Your task to perform on an android device: Search for vintage wall art on Etsy. Image 0: 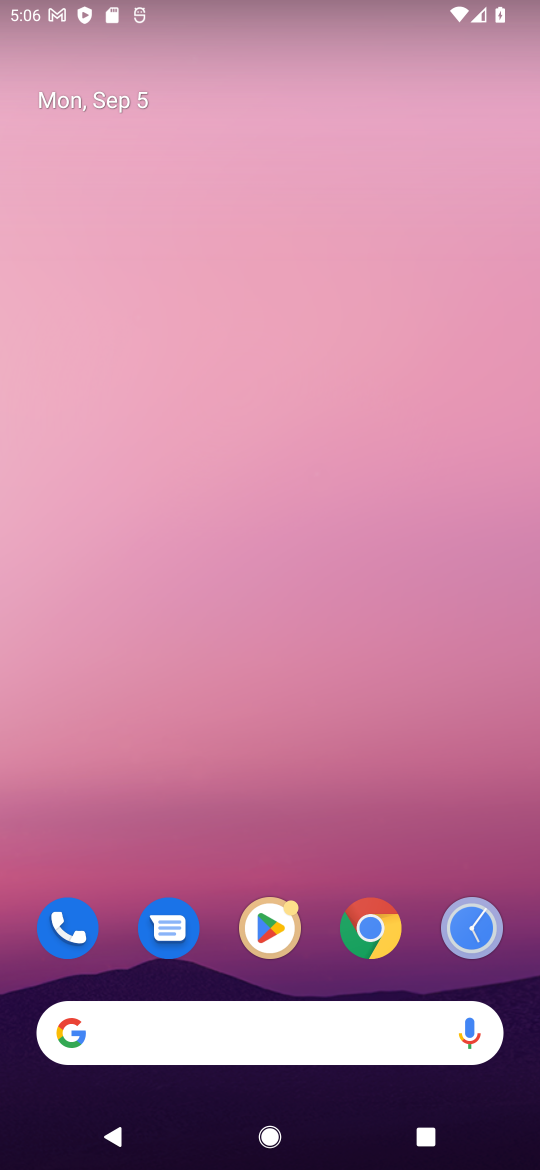
Step 0: click (357, 934)
Your task to perform on an android device: Search for vintage wall art on Etsy. Image 1: 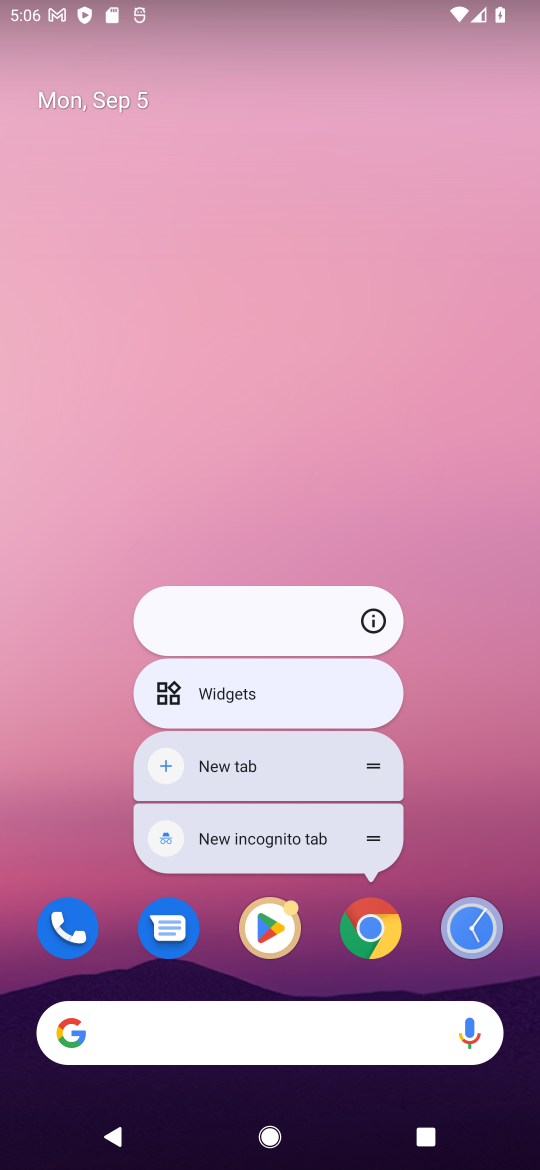
Step 1: click (357, 934)
Your task to perform on an android device: Search for vintage wall art on Etsy. Image 2: 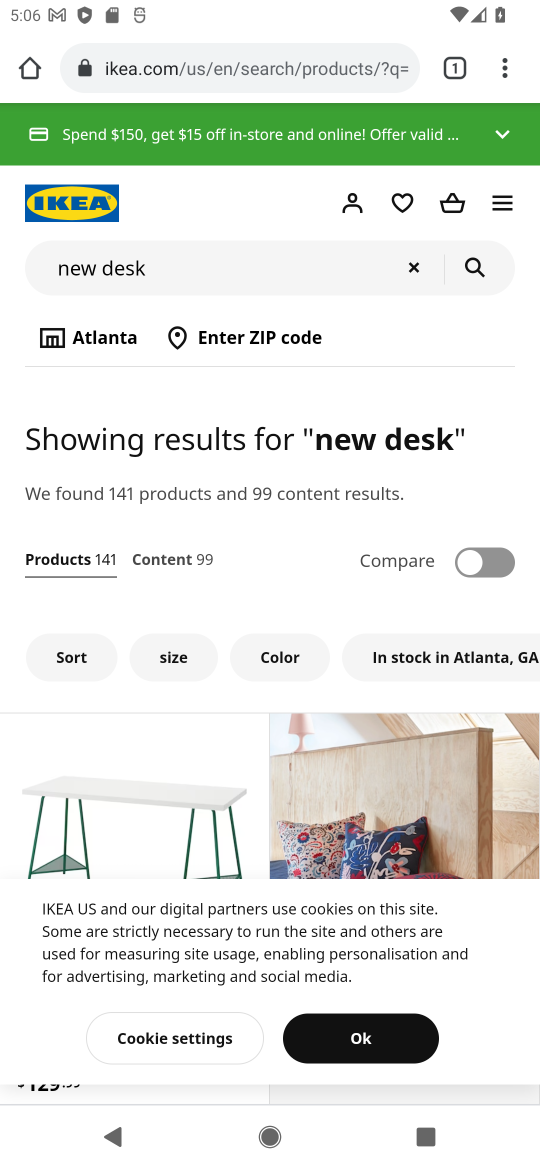
Step 2: click (263, 75)
Your task to perform on an android device: Search for vintage wall art on Etsy. Image 3: 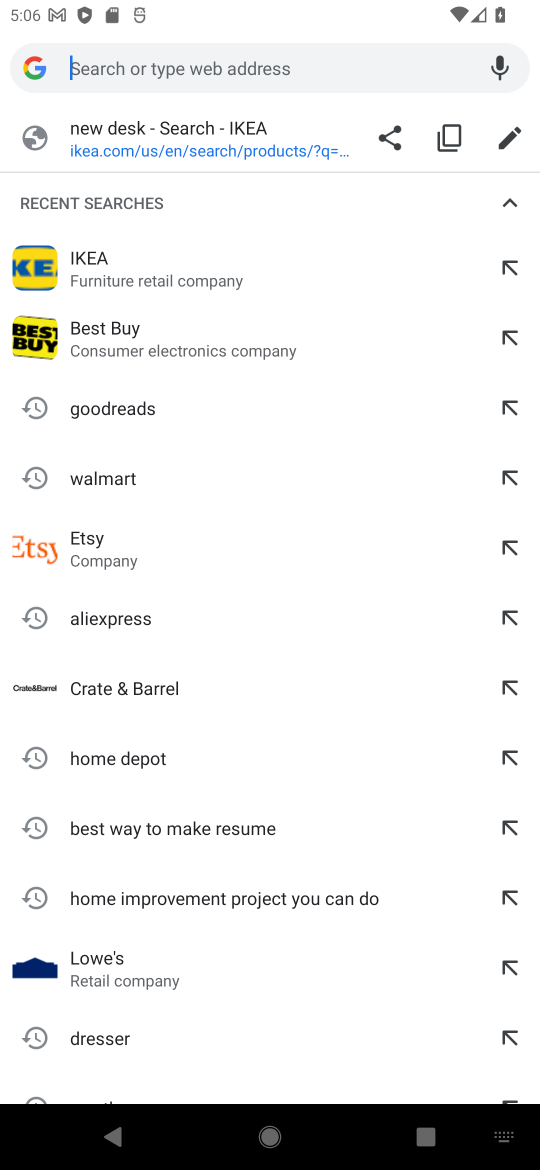
Step 3: type "Etsy"
Your task to perform on an android device: Search for vintage wall art on Etsy. Image 4: 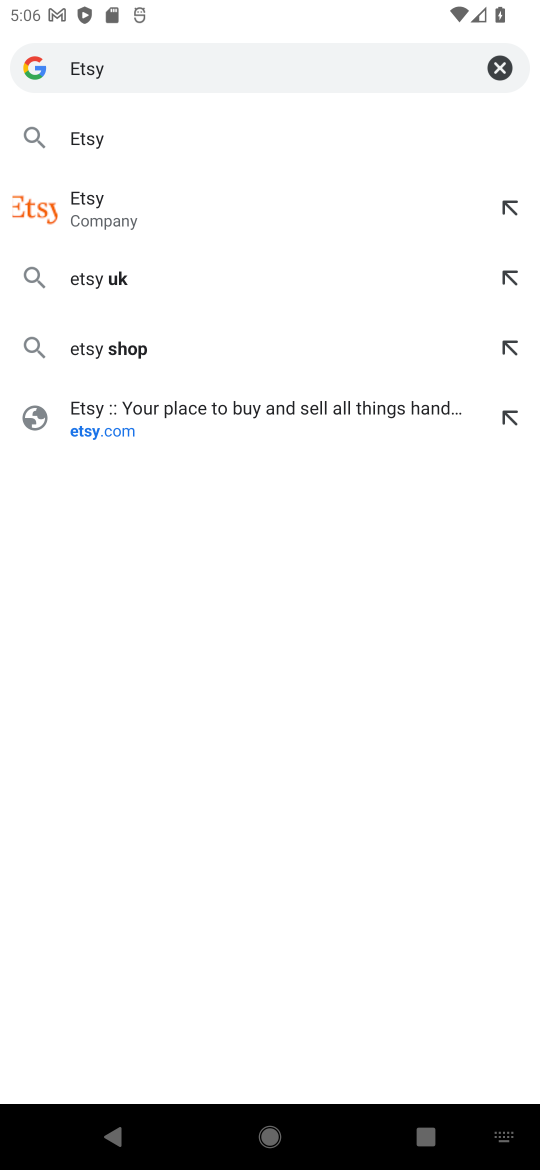
Step 4: click (110, 196)
Your task to perform on an android device: Search for vintage wall art on Etsy. Image 5: 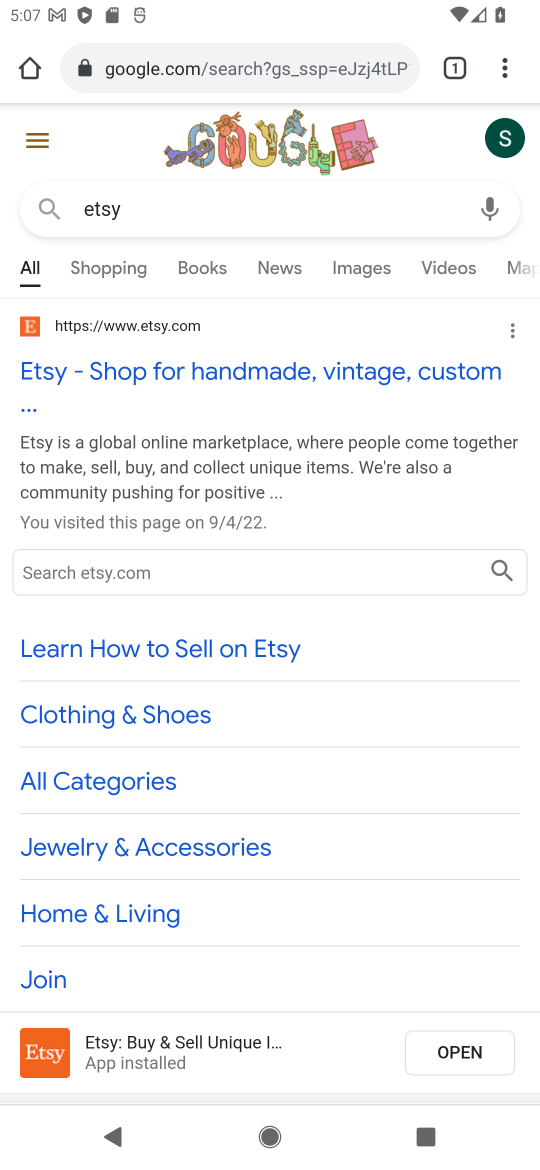
Step 5: click (275, 366)
Your task to perform on an android device: Search for vintage wall art on Etsy. Image 6: 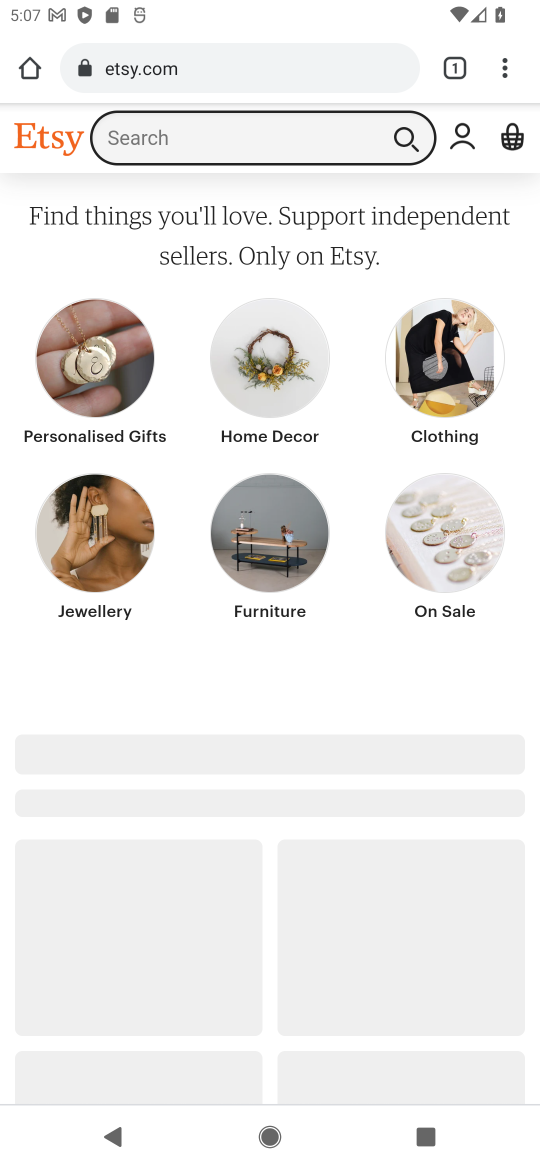
Step 6: click (267, 150)
Your task to perform on an android device: Search for vintage wall art on Etsy. Image 7: 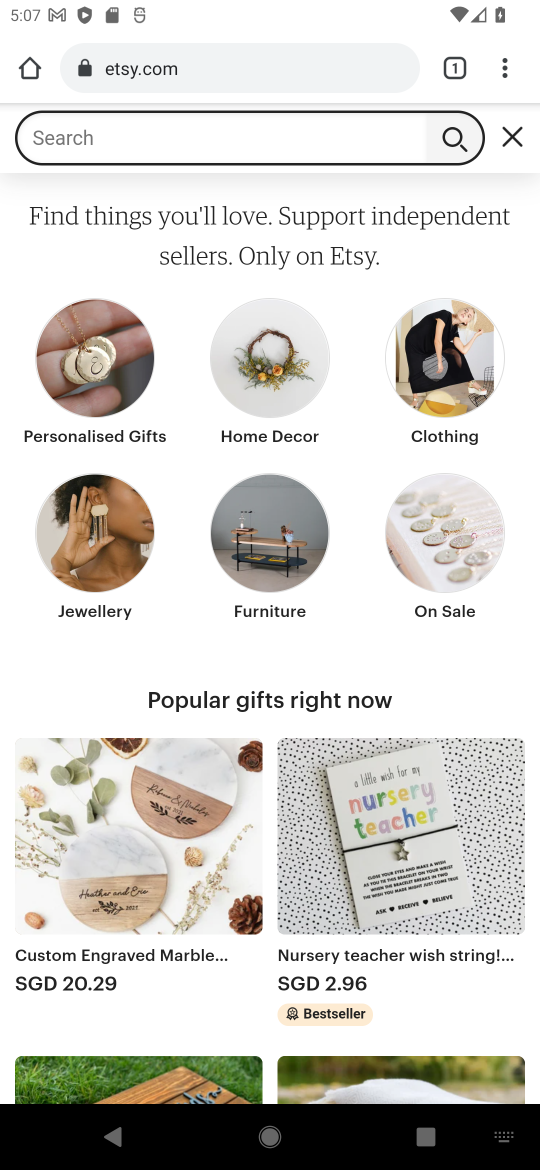
Step 7: type "vintage wall art"
Your task to perform on an android device: Search for vintage wall art on Etsy. Image 8: 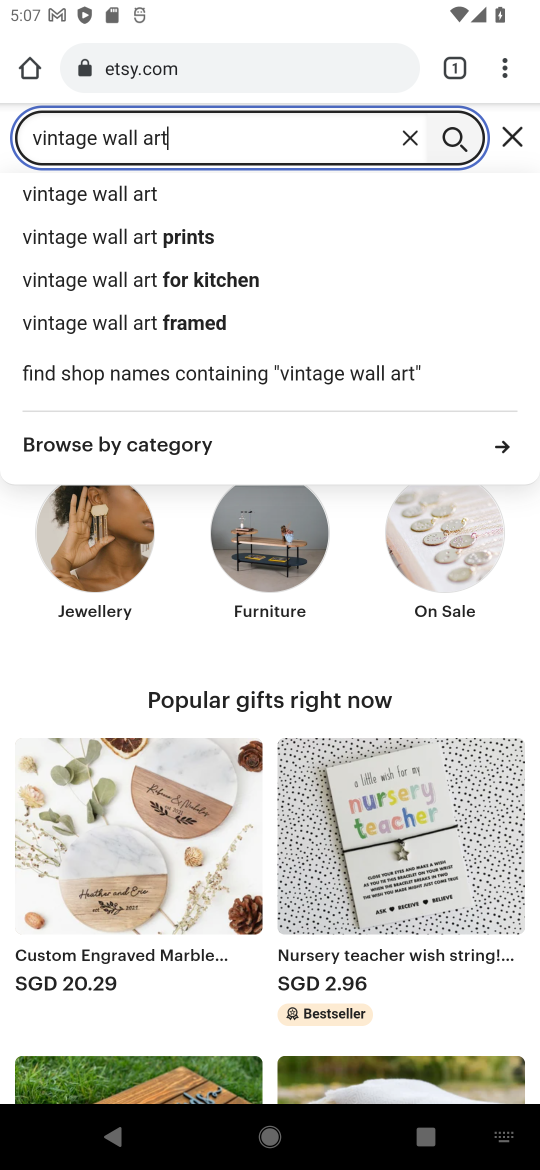
Step 8: click (461, 129)
Your task to perform on an android device: Search for vintage wall art on Etsy. Image 9: 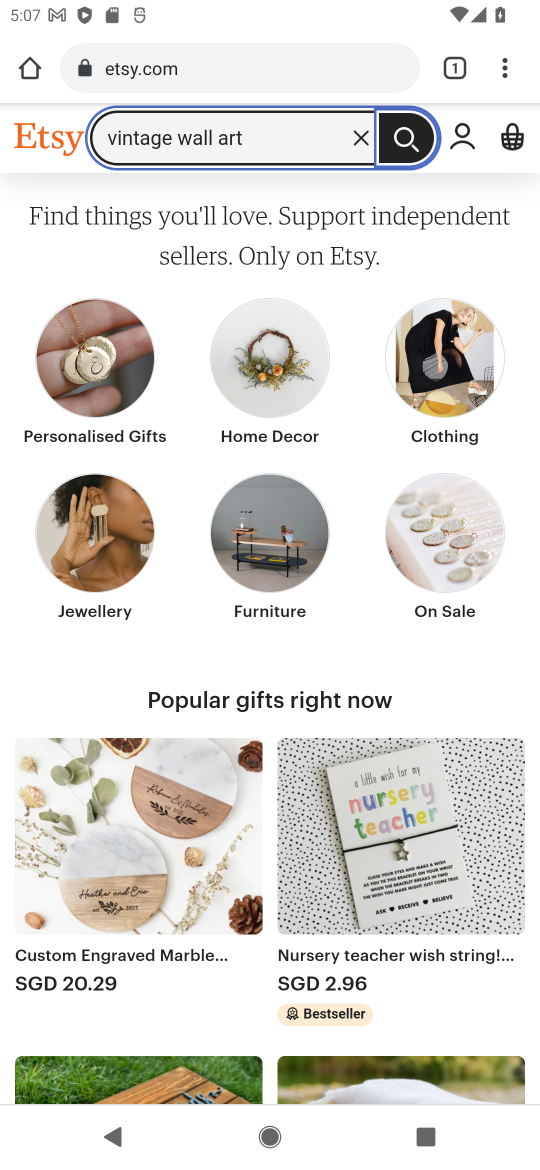
Step 9: click (381, 136)
Your task to perform on an android device: Search for vintage wall art on Etsy. Image 10: 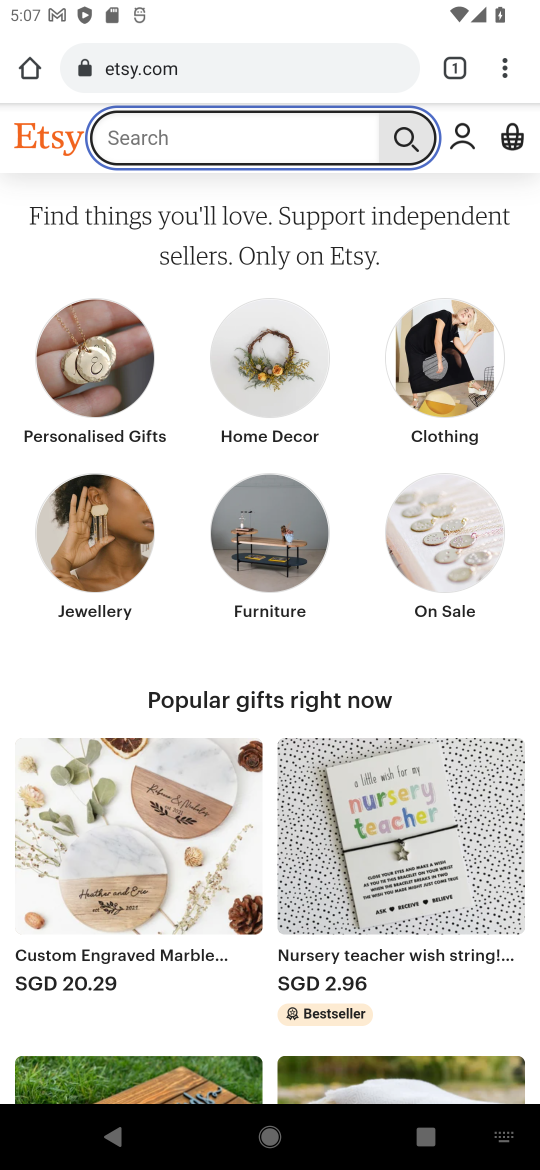
Step 10: type "vintage wall art"
Your task to perform on an android device: Search for vintage wall art on Etsy. Image 11: 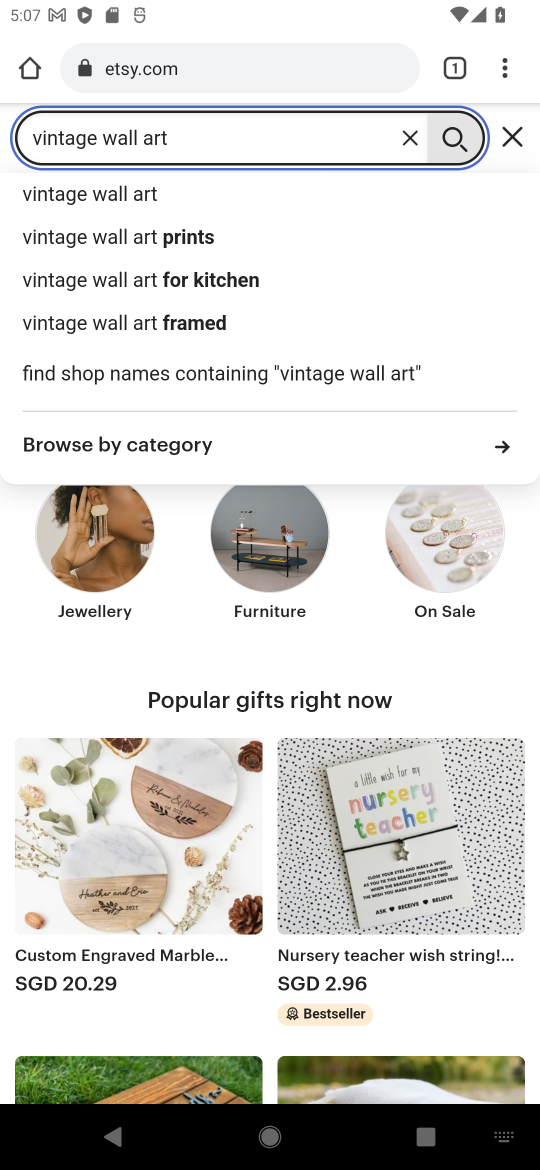
Step 11: click (454, 131)
Your task to perform on an android device: Search for vintage wall art on Etsy. Image 12: 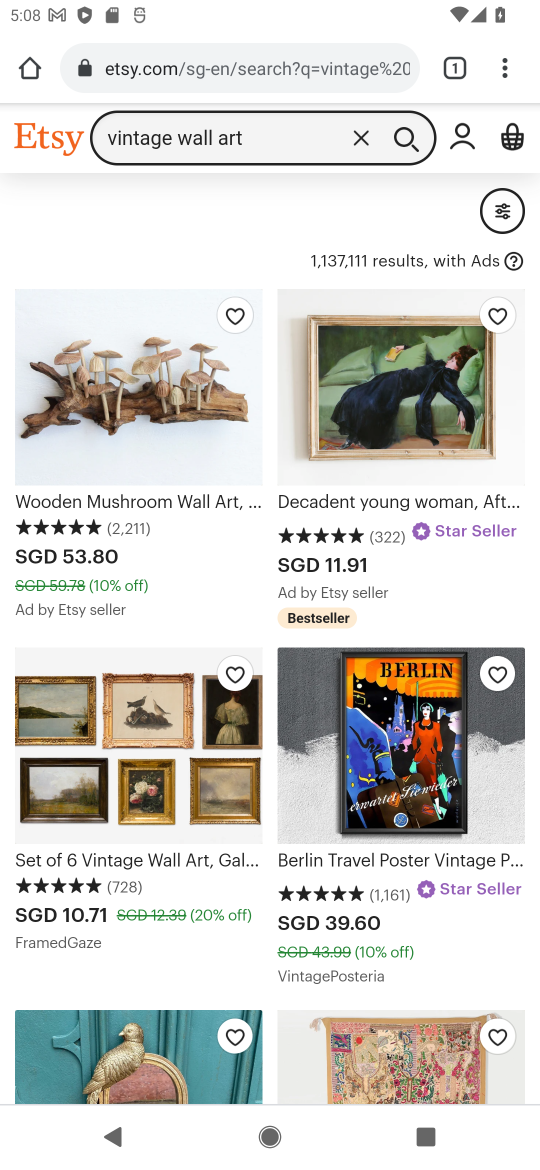
Step 12: task complete